Your task to perform on an android device: change text size in settings app Image 0: 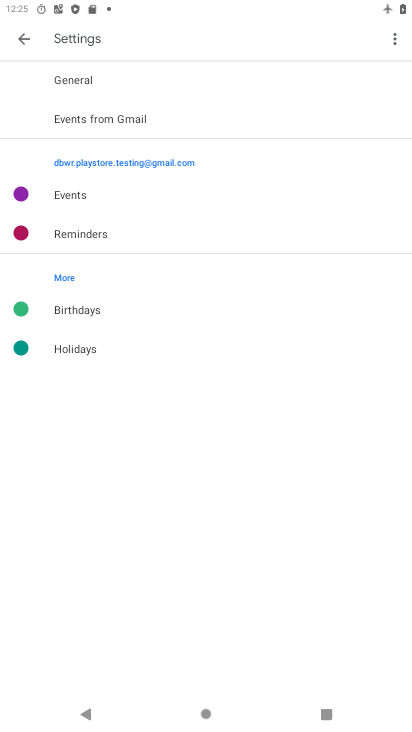
Step 0: press home button
Your task to perform on an android device: change text size in settings app Image 1: 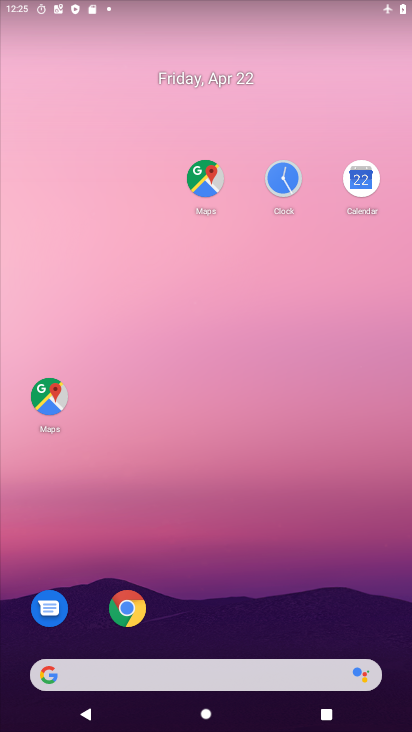
Step 1: drag from (228, 590) to (155, 127)
Your task to perform on an android device: change text size in settings app Image 2: 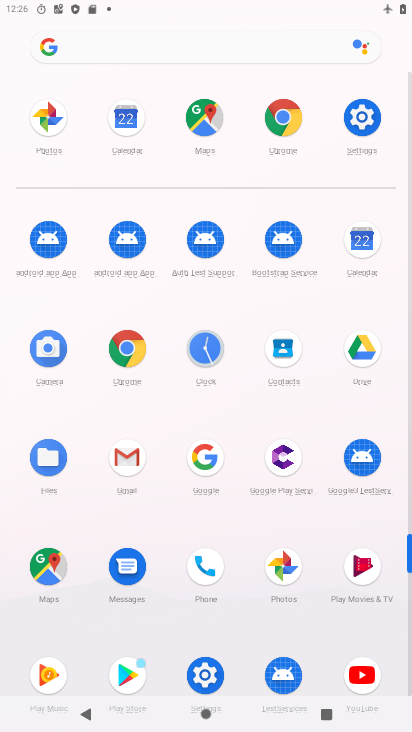
Step 2: click (353, 126)
Your task to perform on an android device: change text size in settings app Image 3: 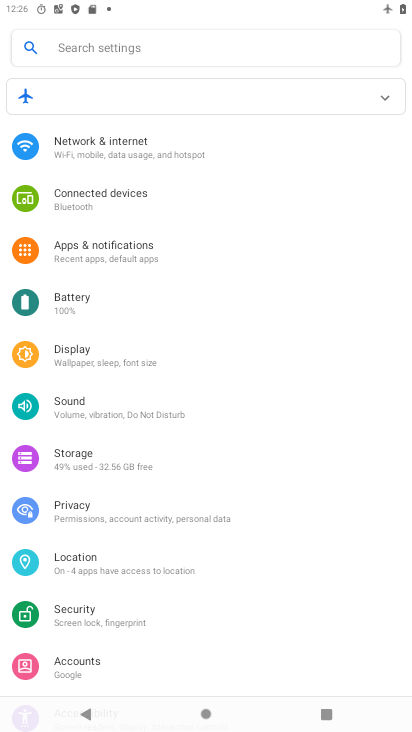
Step 3: drag from (102, 443) to (184, 85)
Your task to perform on an android device: change text size in settings app Image 4: 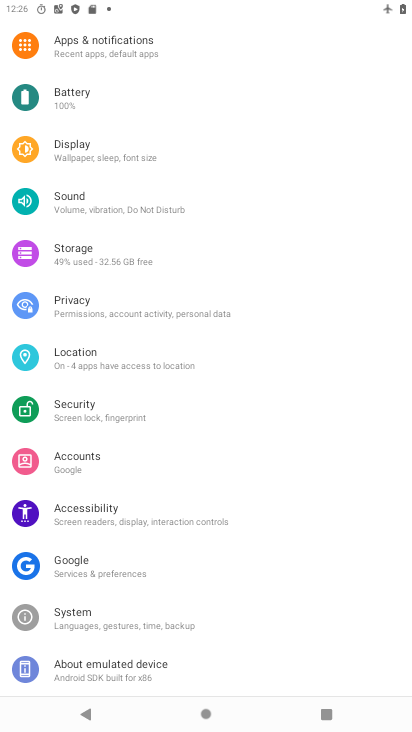
Step 4: click (78, 146)
Your task to perform on an android device: change text size in settings app Image 5: 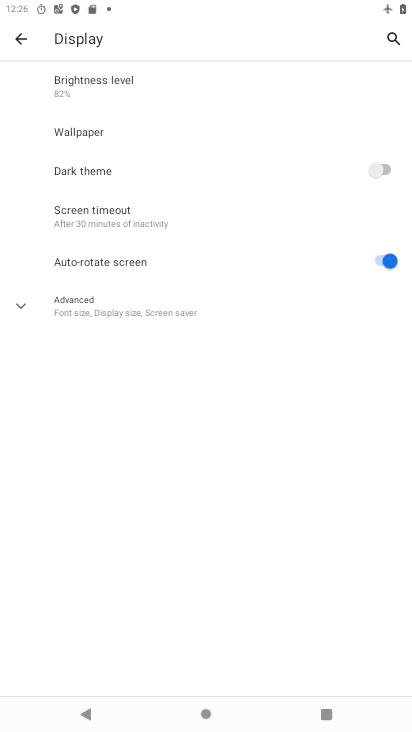
Step 5: click (78, 145)
Your task to perform on an android device: change text size in settings app Image 6: 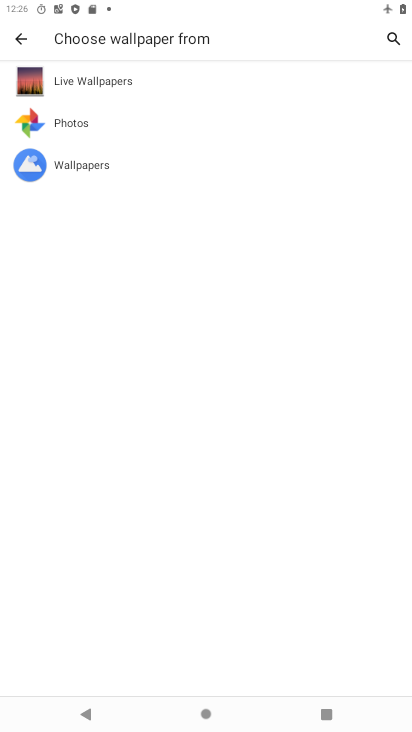
Step 6: click (20, 39)
Your task to perform on an android device: change text size in settings app Image 7: 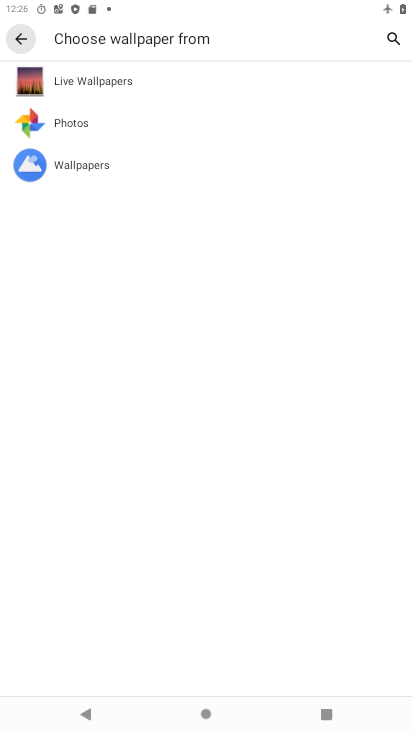
Step 7: click (20, 39)
Your task to perform on an android device: change text size in settings app Image 8: 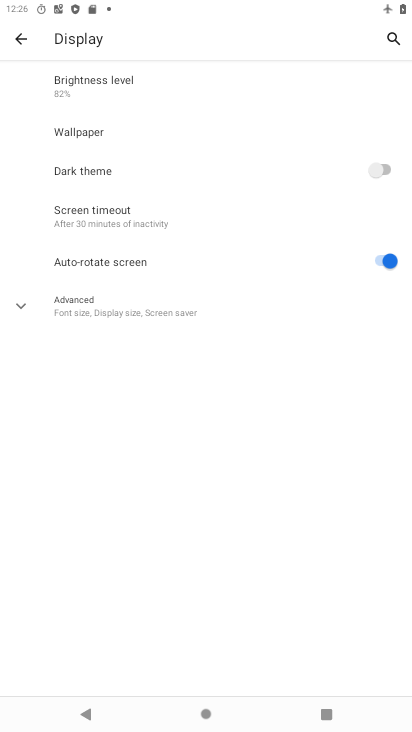
Step 8: click (20, 40)
Your task to perform on an android device: change text size in settings app Image 9: 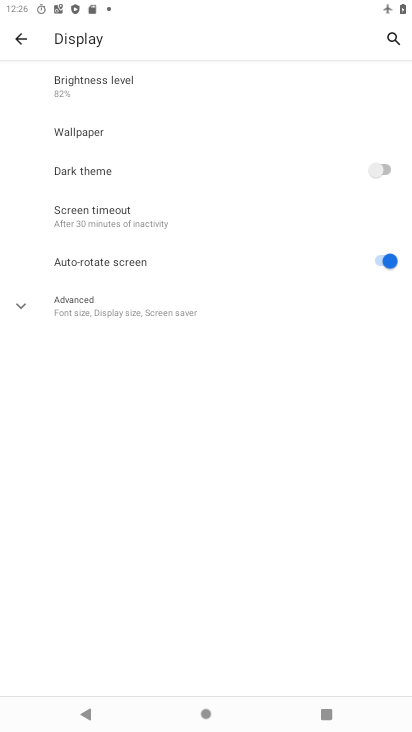
Step 9: click (21, 41)
Your task to perform on an android device: change text size in settings app Image 10: 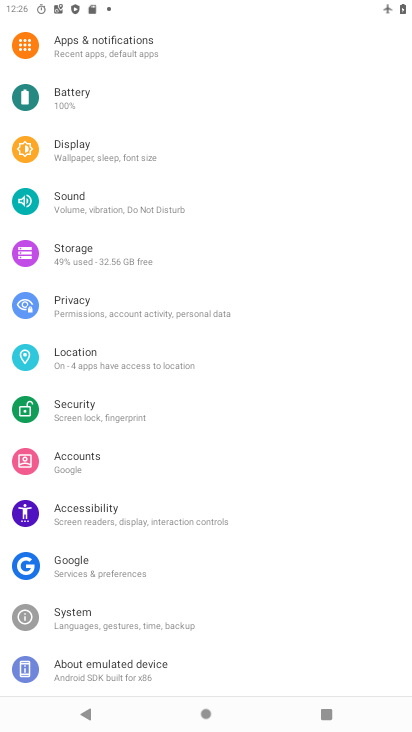
Step 10: click (23, 42)
Your task to perform on an android device: change text size in settings app Image 11: 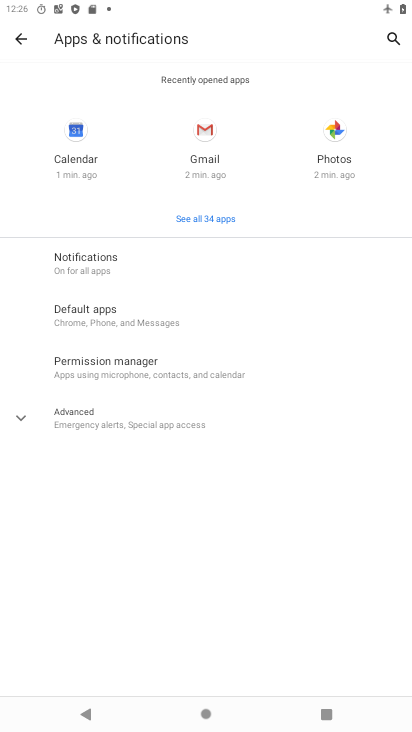
Step 11: click (18, 45)
Your task to perform on an android device: change text size in settings app Image 12: 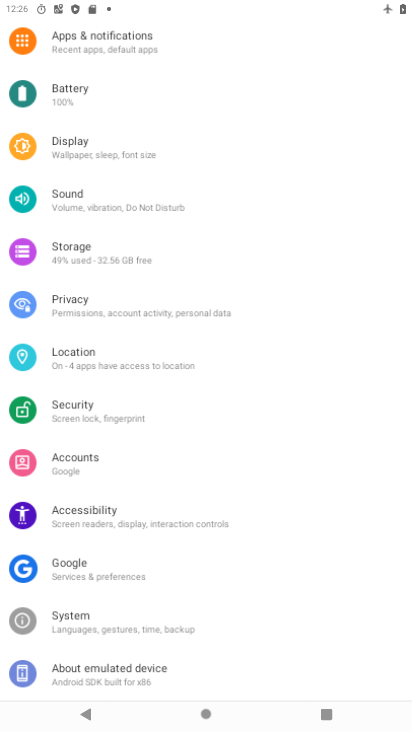
Step 12: click (24, 40)
Your task to perform on an android device: change text size in settings app Image 13: 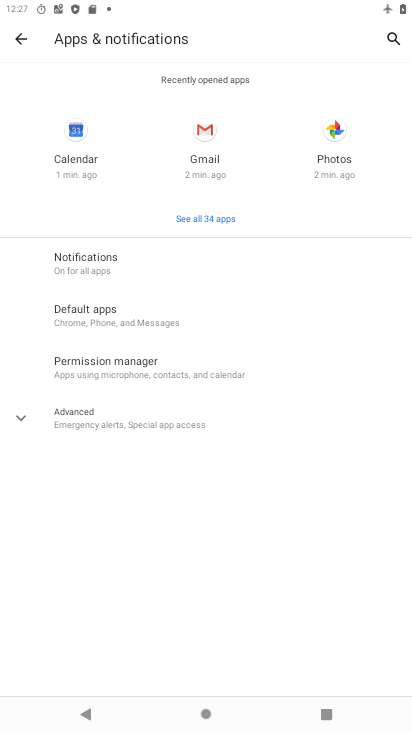
Step 13: click (15, 37)
Your task to perform on an android device: change text size in settings app Image 14: 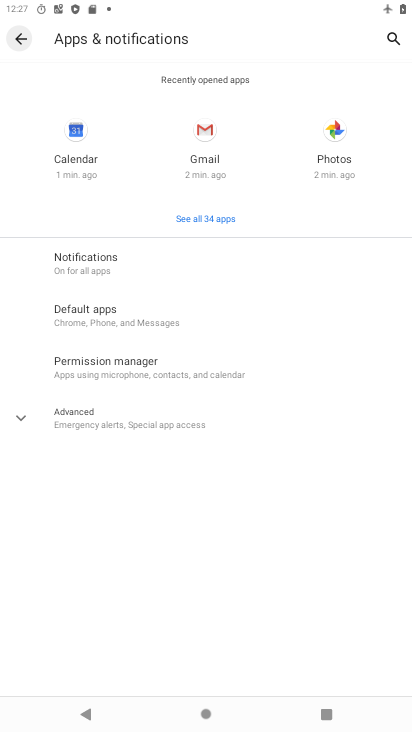
Step 14: click (15, 37)
Your task to perform on an android device: change text size in settings app Image 15: 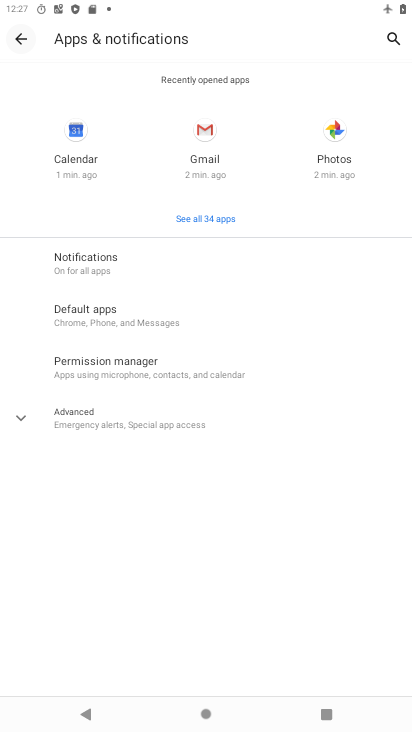
Step 15: click (15, 37)
Your task to perform on an android device: change text size in settings app Image 16: 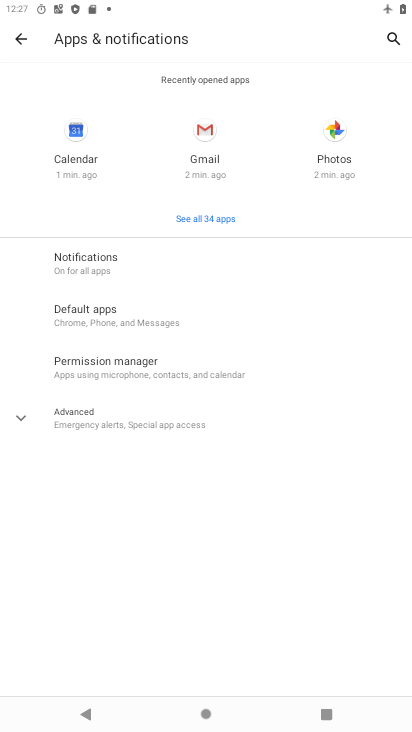
Step 16: click (20, 27)
Your task to perform on an android device: change text size in settings app Image 17: 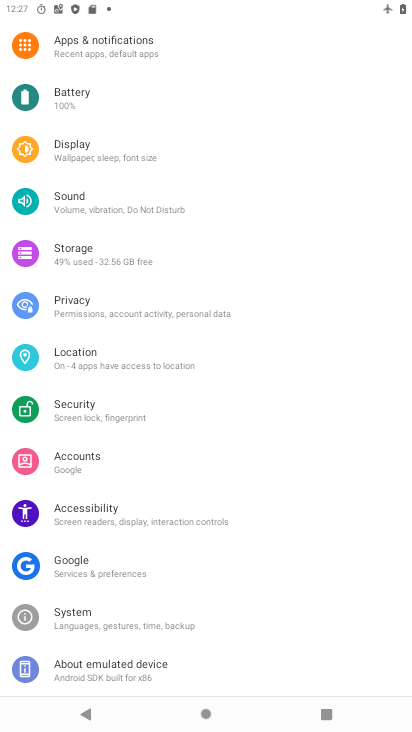
Step 17: click (69, 151)
Your task to perform on an android device: change text size in settings app Image 18: 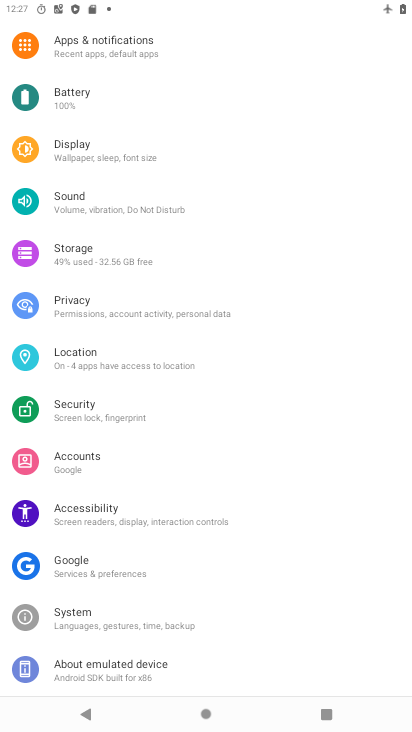
Step 18: click (70, 151)
Your task to perform on an android device: change text size in settings app Image 19: 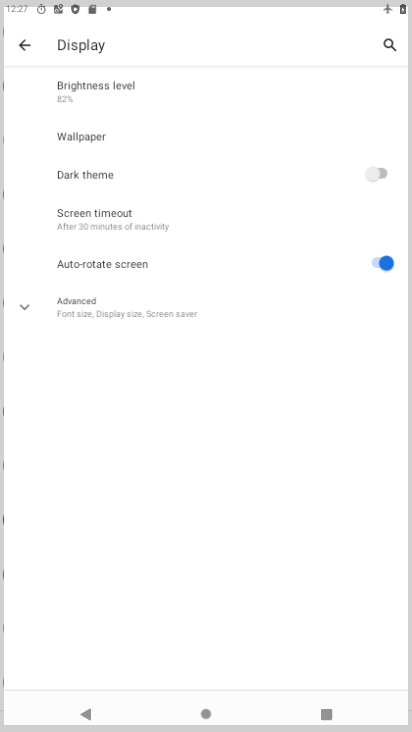
Step 19: click (72, 150)
Your task to perform on an android device: change text size in settings app Image 20: 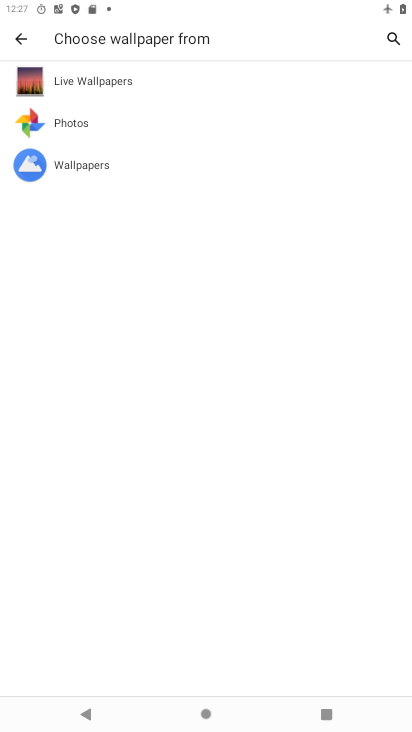
Step 20: click (27, 47)
Your task to perform on an android device: change text size in settings app Image 21: 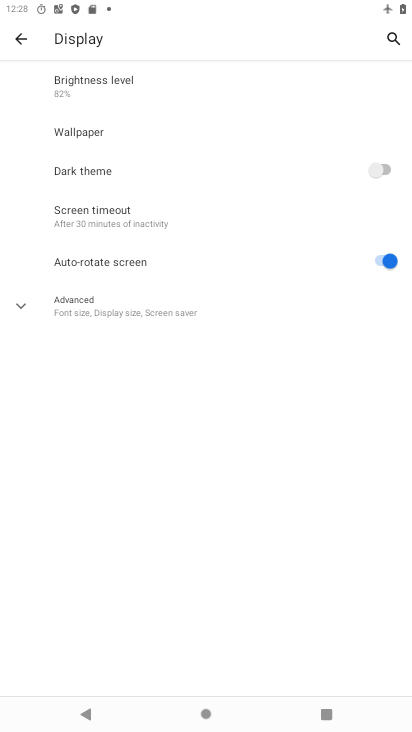
Step 21: click (81, 302)
Your task to perform on an android device: change text size in settings app Image 22: 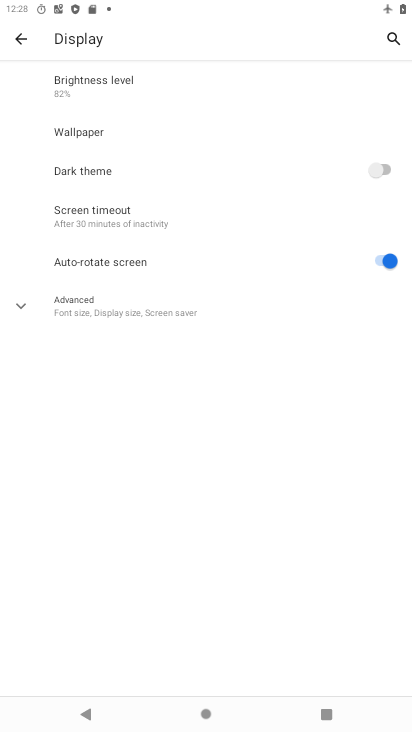
Step 22: click (81, 301)
Your task to perform on an android device: change text size in settings app Image 23: 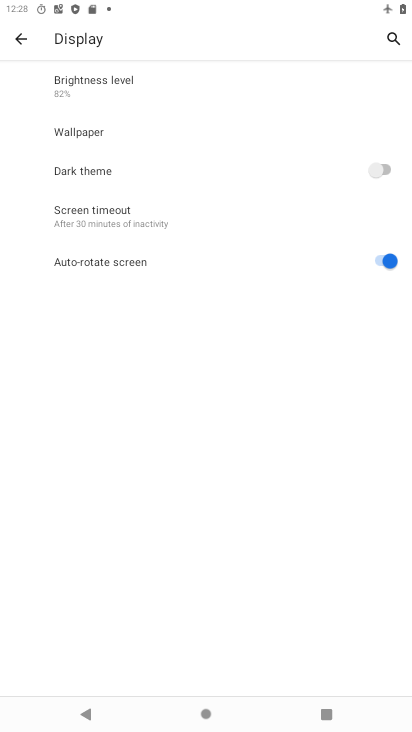
Step 23: click (80, 300)
Your task to perform on an android device: change text size in settings app Image 24: 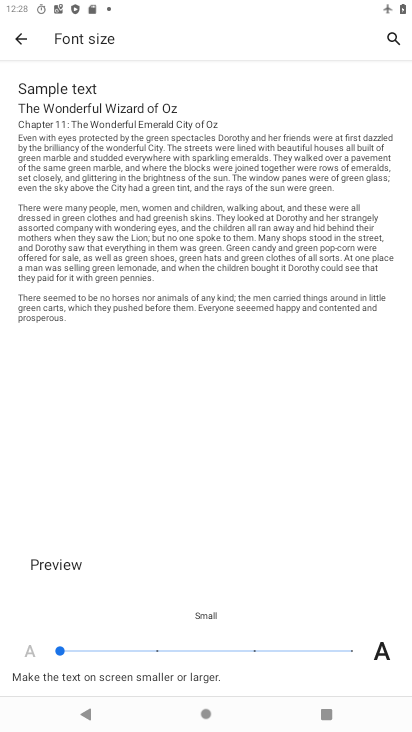
Step 24: click (158, 649)
Your task to perform on an android device: change text size in settings app Image 25: 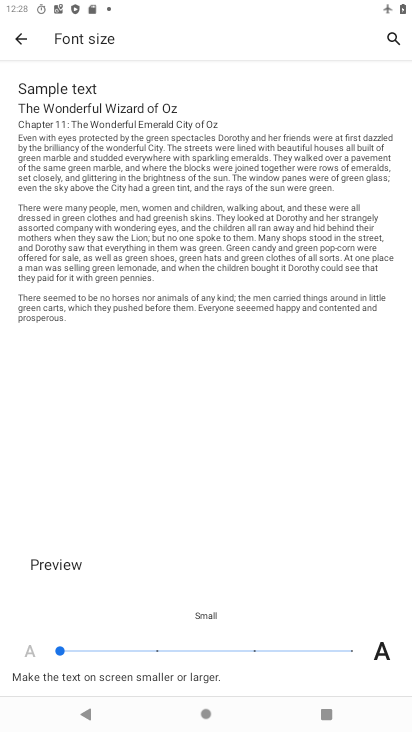
Step 25: click (159, 650)
Your task to perform on an android device: change text size in settings app Image 26: 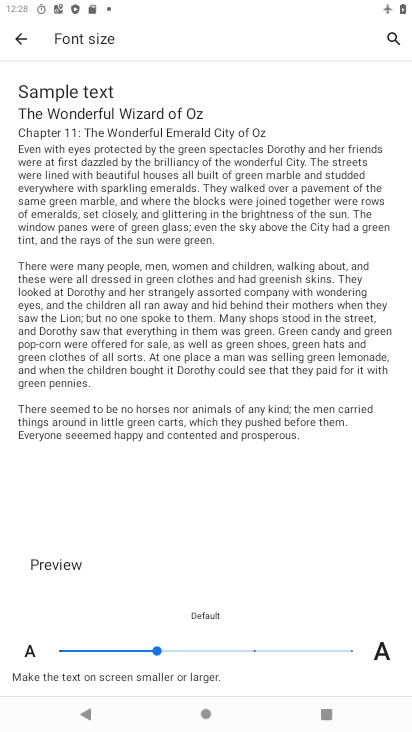
Step 26: click (159, 650)
Your task to perform on an android device: change text size in settings app Image 27: 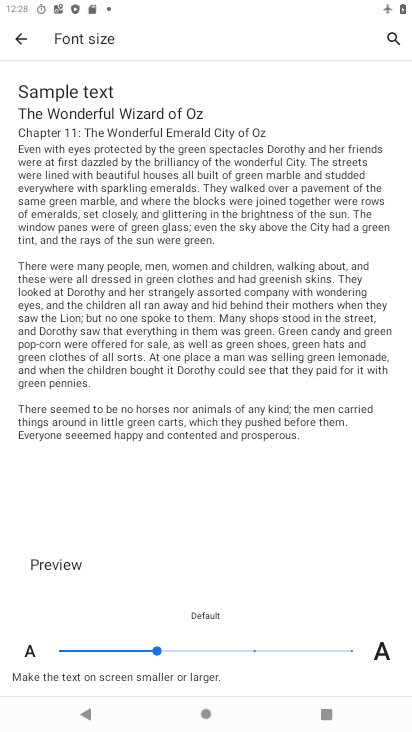
Step 27: click (144, 624)
Your task to perform on an android device: change text size in settings app Image 28: 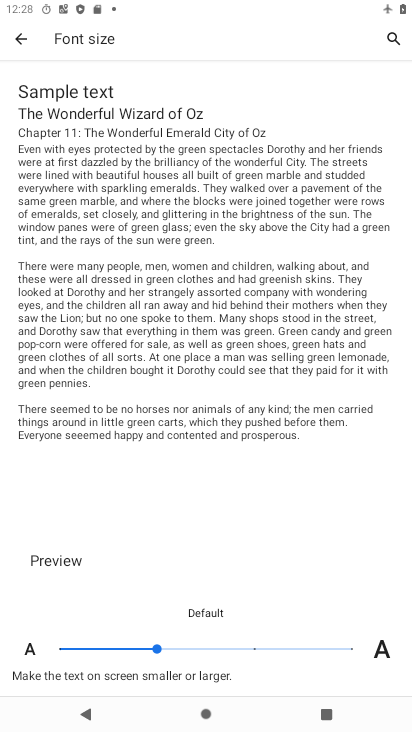
Step 28: task complete